Your task to perform on an android device: Empty the shopping cart on ebay.com. Add "amazon basics triple a" to the cart on ebay.com Image 0: 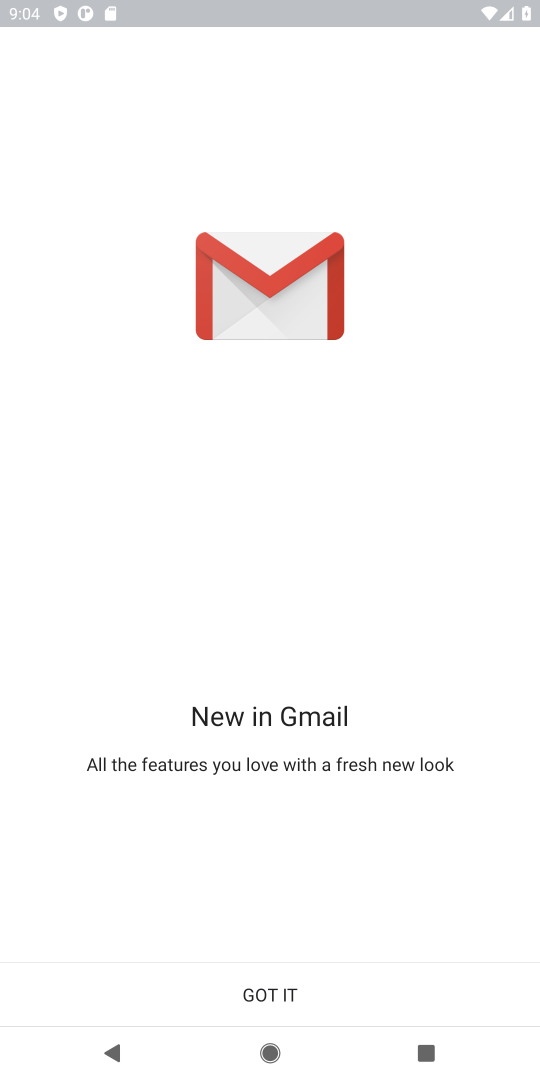
Step 0: press home button
Your task to perform on an android device: Empty the shopping cart on ebay.com. Add "amazon basics triple a" to the cart on ebay.com Image 1: 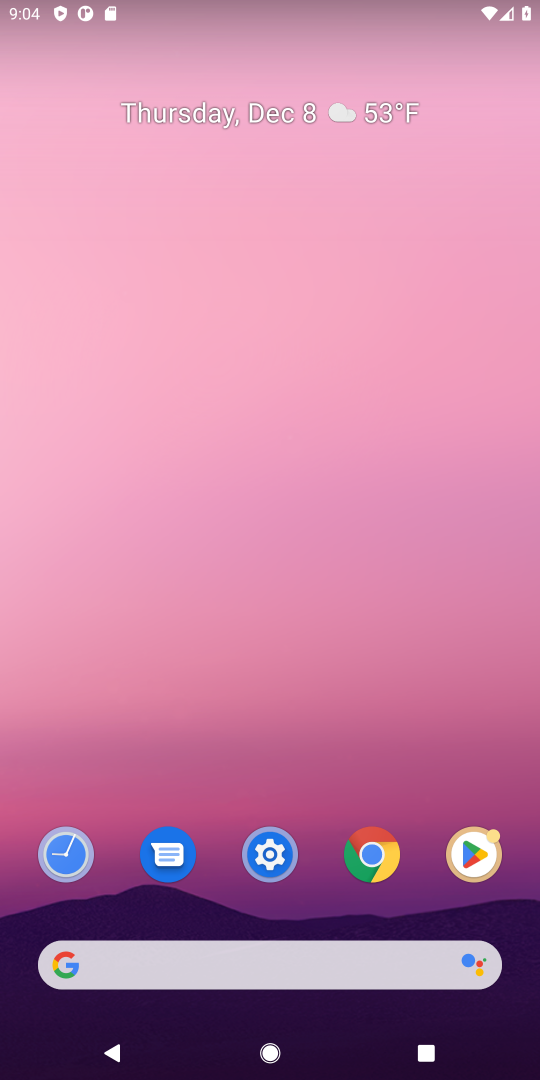
Step 1: click (98, 956)
Your task to perform on an android device: Empty the shopping cart on ebay.com. Add "amazon basics triple a" to the cart on ebay.com Image 2: 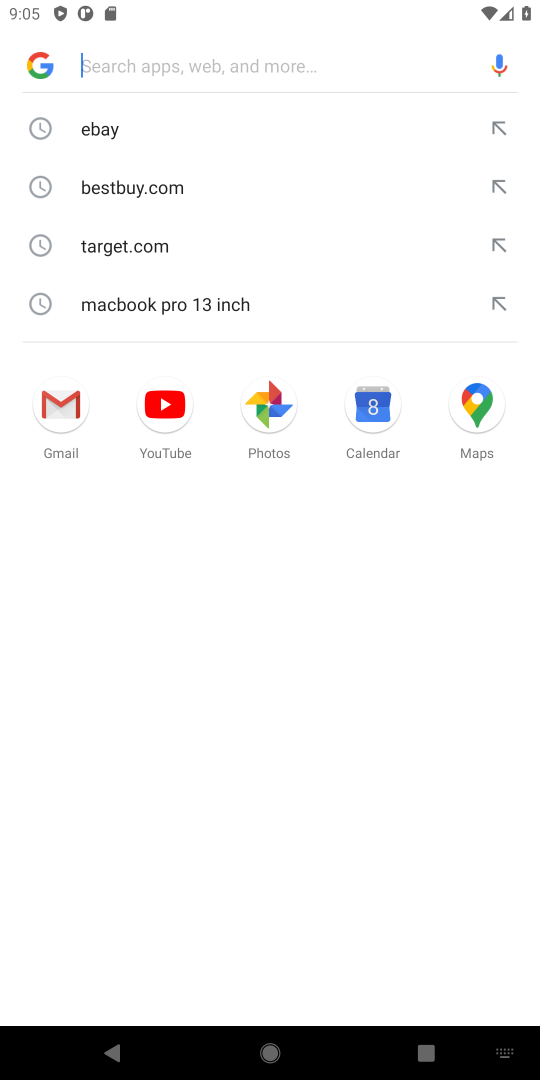
Step 2: type "ebay.com"
Your task to perform on an android device: Empty the shopping cart on ebay.com. Add "amazon basics triple a" to the cart on ebay.com Image 3: 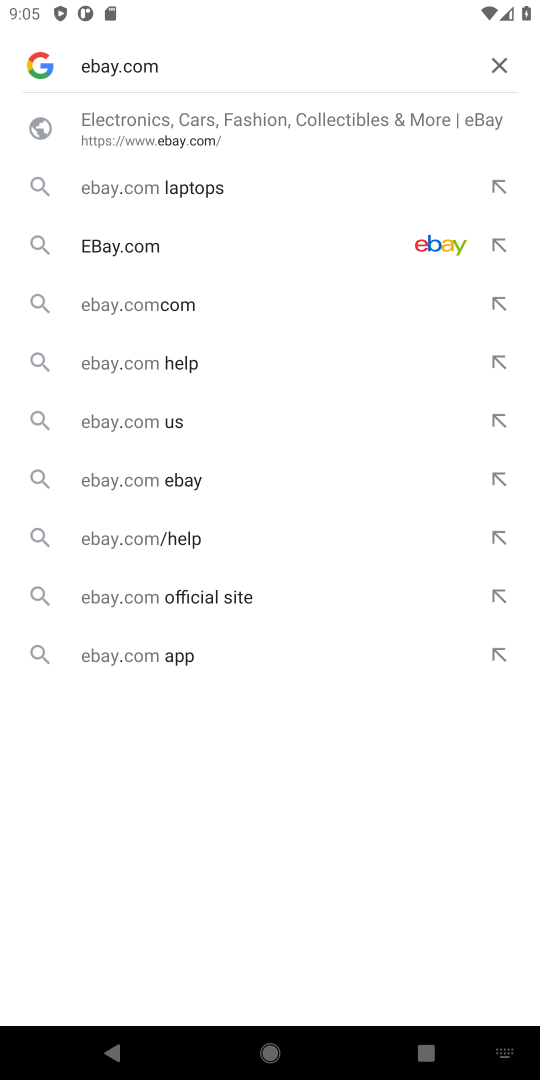
Step 3: press enter
Your task to perform on an android device: Empty the shopping cart on ebay.com. Add "amazon basics triple a" to the cart on ebay.com Image 4: 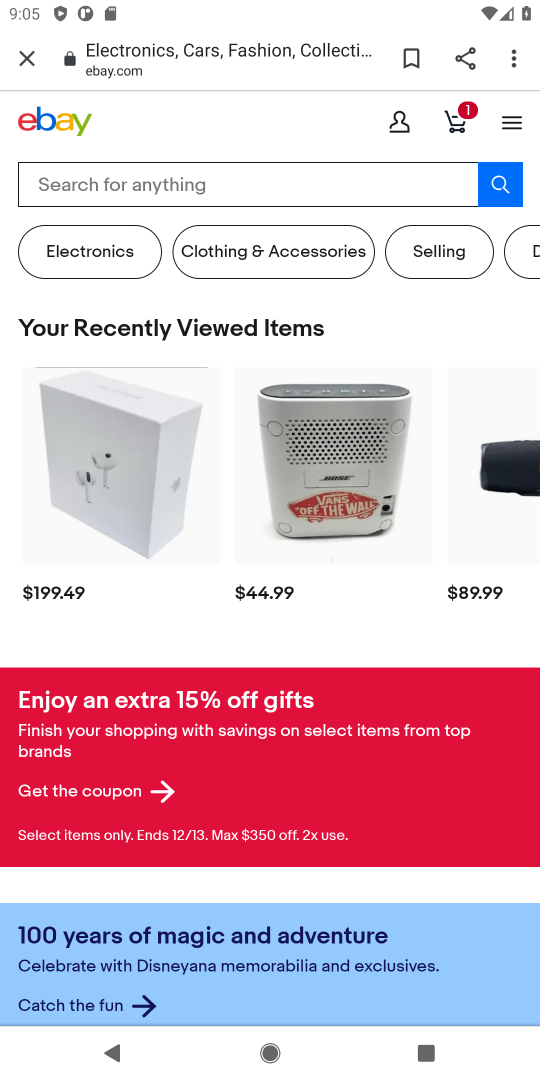
Step 4: click (457, 107)
Your task to perform on an android device: Empty the shopping cart on ebay.com. Add "amazon basics triple a" to the cart on ebay.com Image 5: 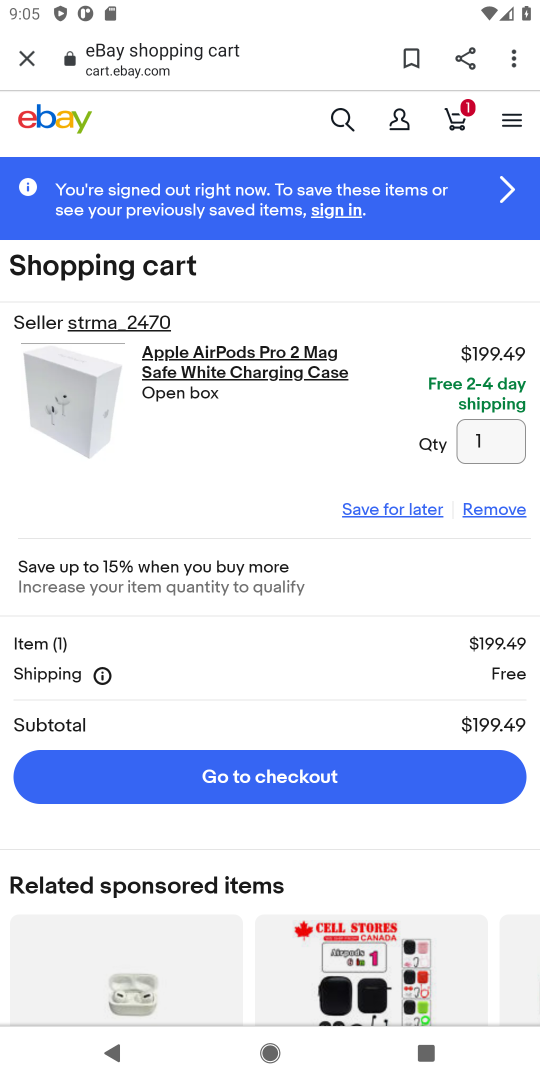
Step 5: click (499, 508)
Your task to perform on an android device: Empty the shopping cart on ebay.com. Add "amazon basics triple a" to the cart on ebay.com Image 6: 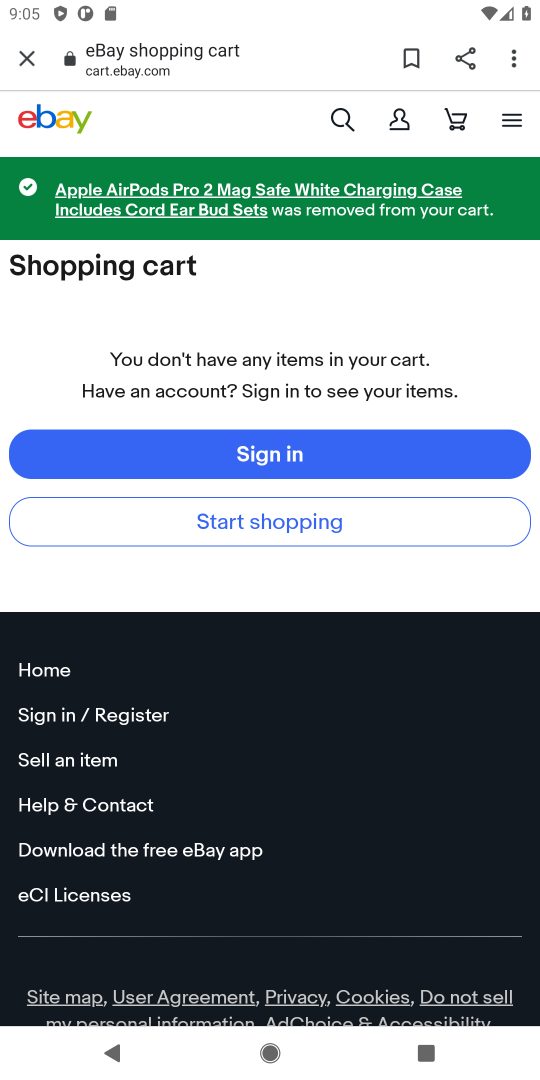
Step 6: click (340, 113)
Your task to perform on an android device: Empty the shopping cart on ebay.com. Add "amazon basics triple a" to the cart on ebay.com Image 7: 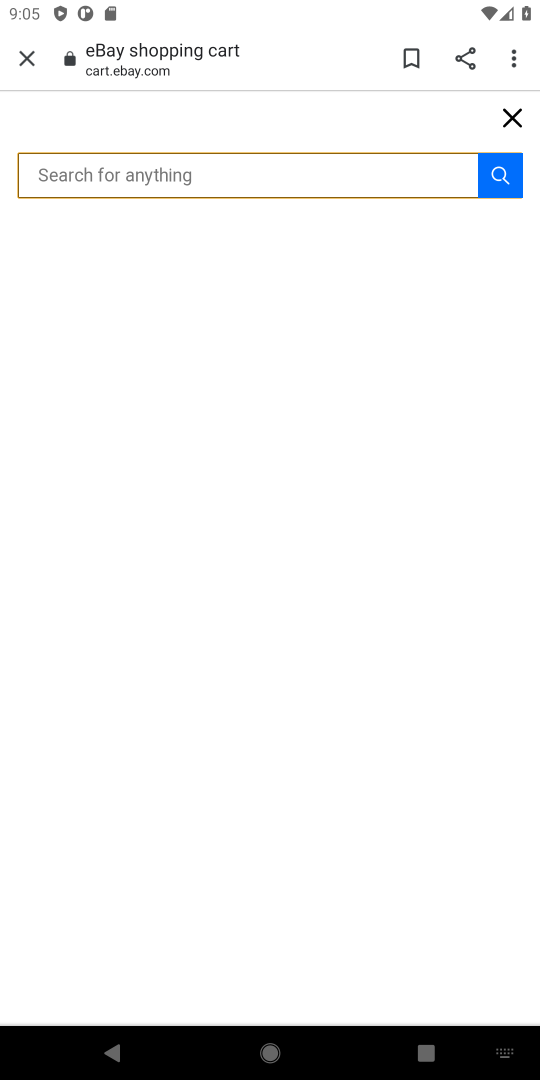
Step 7: type "amazon basics triple a"
Your task to perform on an android device: Empty the shopping cart on ebay.com. Add "amazon basics triple a" to the cart on ebay.com Image 8: 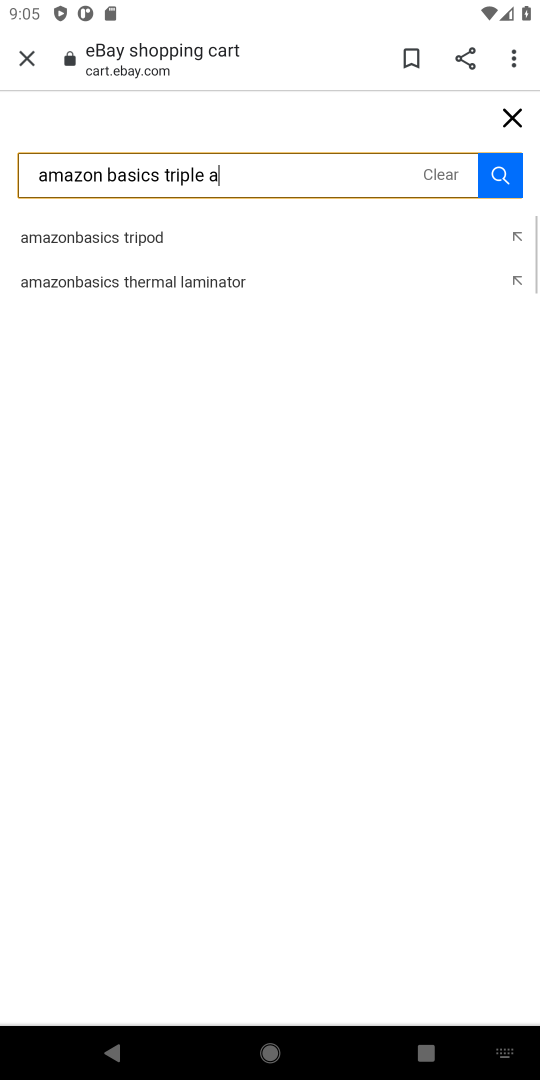
Step 8: press enter
Your task to perform on an android device: Empty the shopping cart on ebay.com. Add "amazon basics triple a" to the cart on ebay.com Image 9: 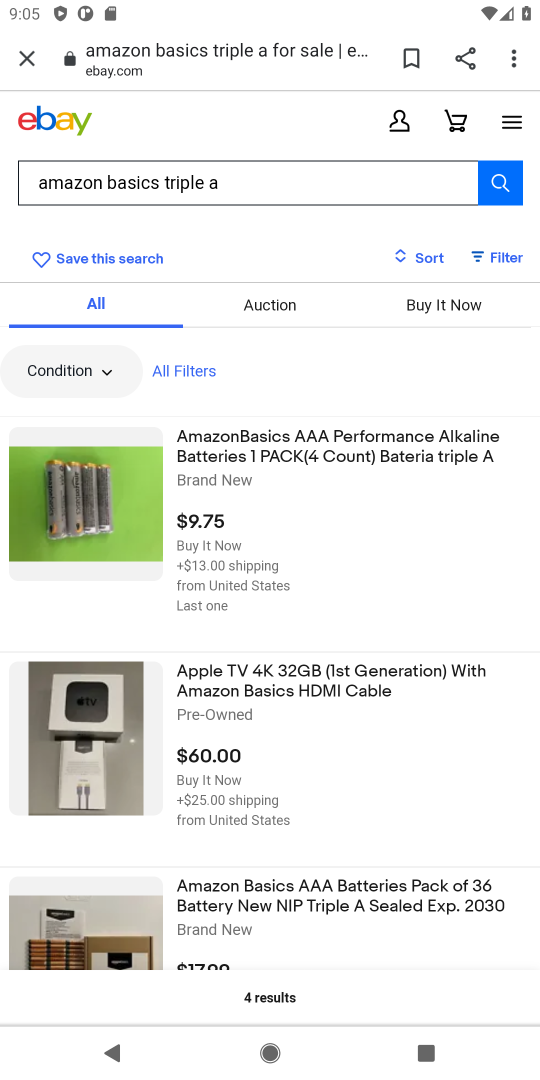
Step 9: click (260, 449)
Your task to perform on an android device: Empty the shopping cart on ebay.com. Add "amazon basics triple a" to the cart on ebay.com Image 10: 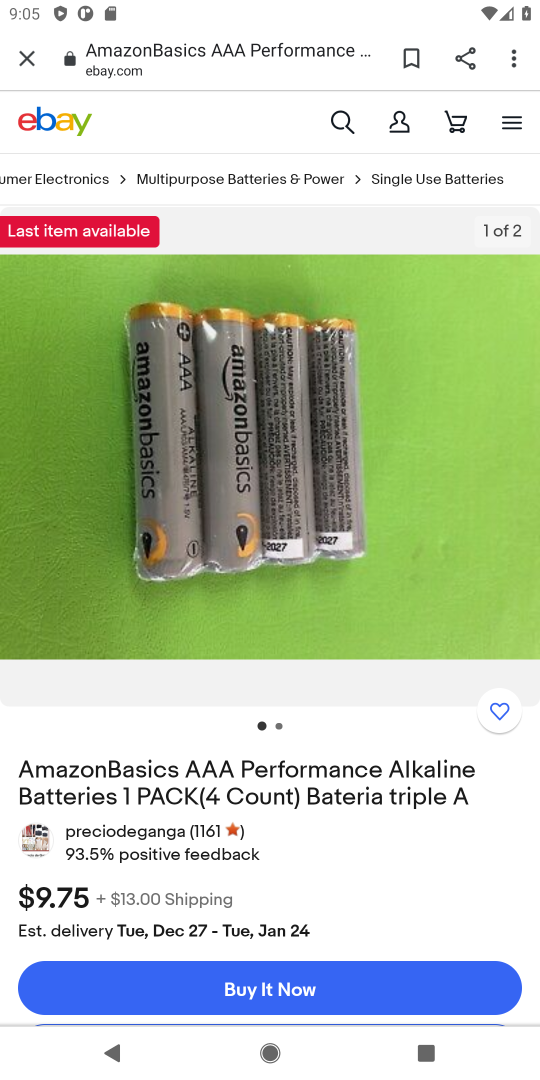
Step 10: drag from (352, 877) to (328, 292)
Your task to perform on an android device: Empty the shopping cart on ebay.com. Add "amazon basics triple a" to the cart on ebay.com Image 11: 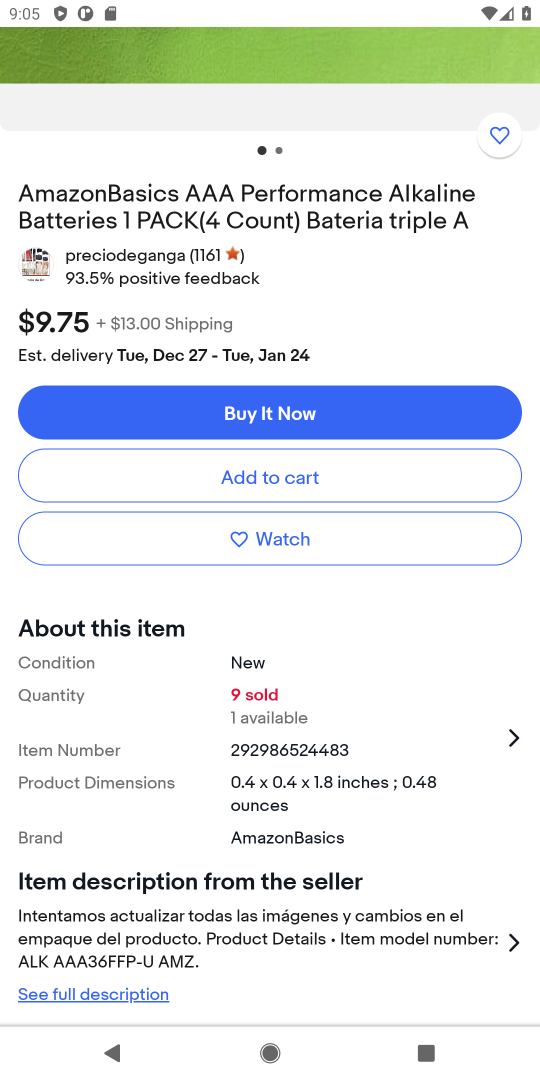
Step 11: click (257, 473)
Your task to perform on an android device: Empty the shopping cart on ebay.com. Add "amazon basics triple a" to the cart on ebay.com Image 12: 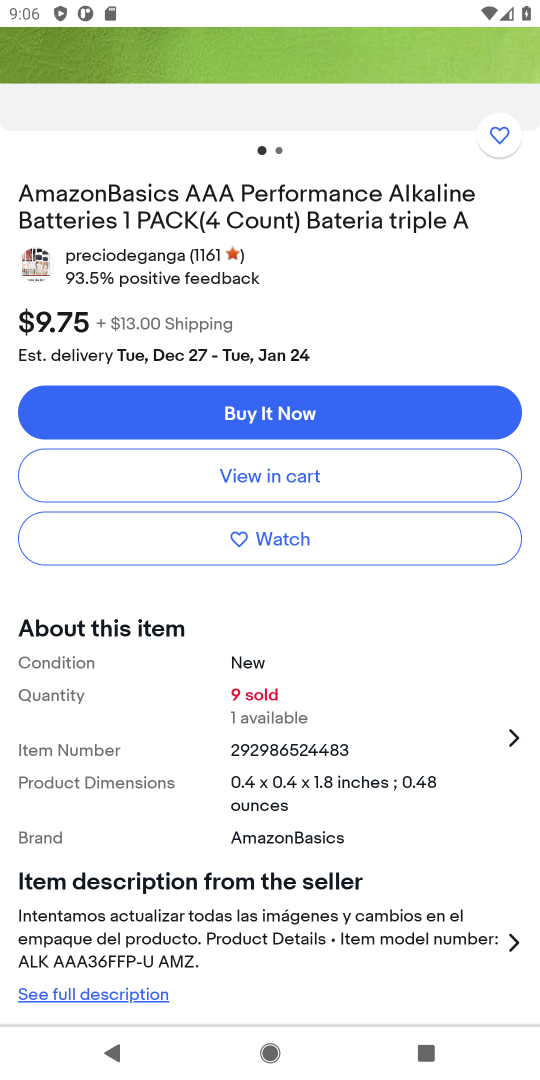
Step 12: task complete